Your task to perform on an android device: open chrome privacy settings Image 0: 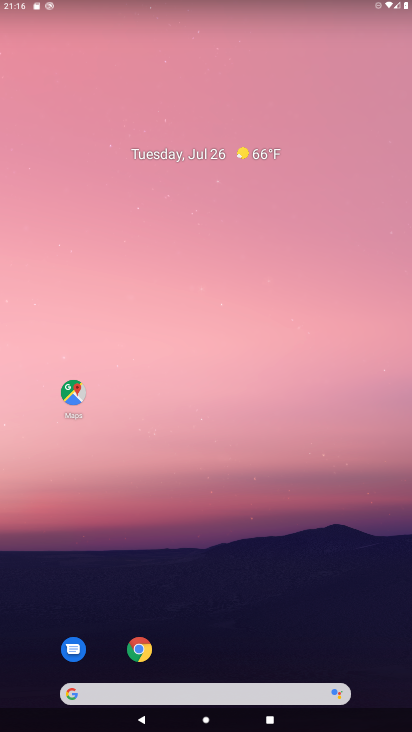
Step 0: click (143, 660)
Your task to perform on an android device: open chrome privacy settings Image 1: 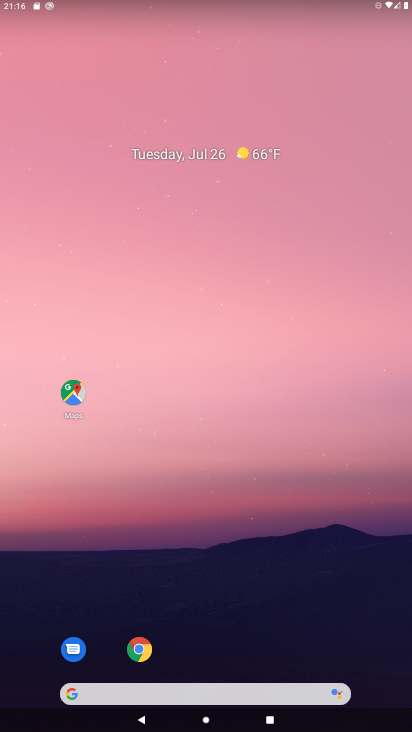
Step 1: click (143, 660)
Your task to perform on an android device: open chrome privacy settings Image 2: 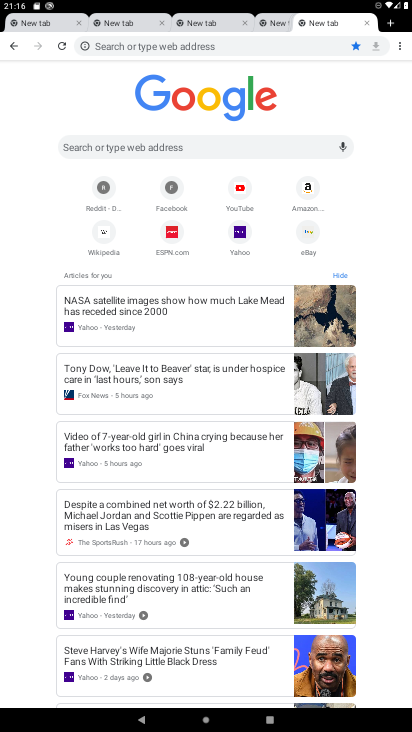
Step 2: click (398, 42)
Your task to perform on an android device: open chrome privacy settings Image 3: 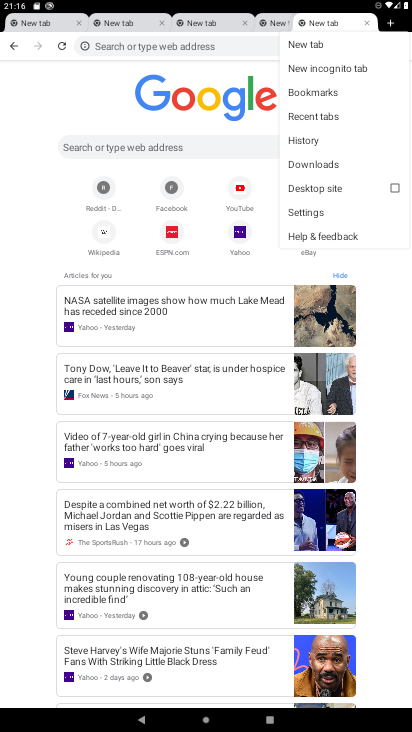
Step 3: click (310, 218)
Your task to perform on an android device: open chrome privacy settings Image 4: 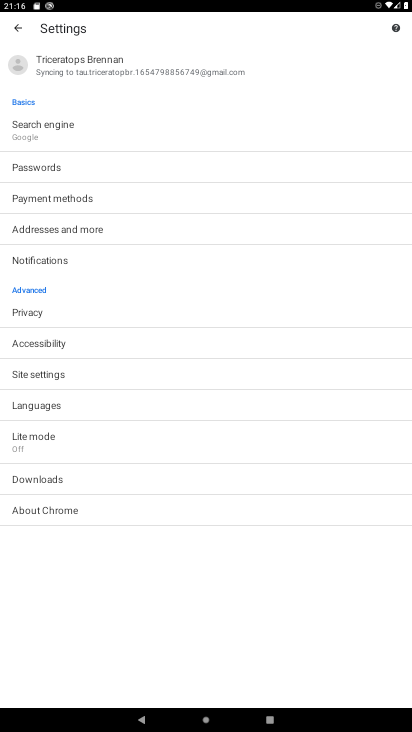
Step 4: click (33, 311)
Your task to perform on an android device: open chrome privacy settings Image 5: 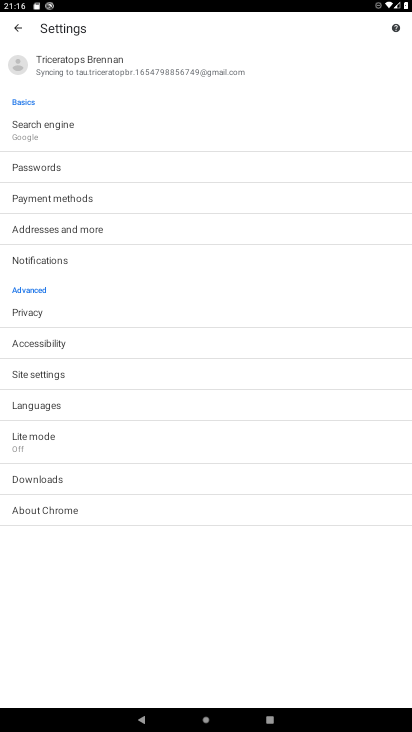
Step 5: click (33, 311)
Your task to perform on an android device: open chrome privacy settings Image 6: 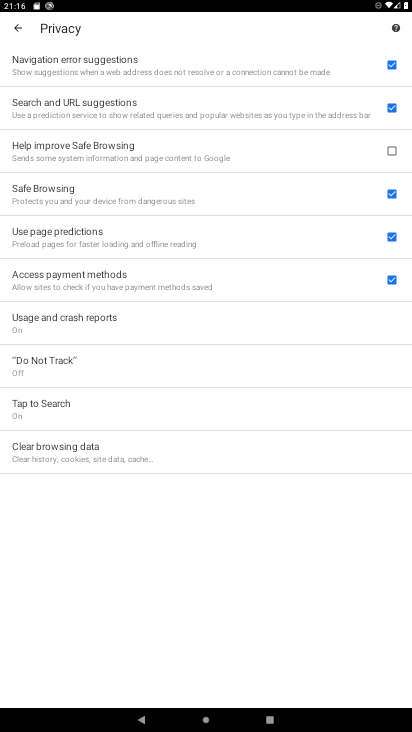
Step 6: task complete